Your task to perform on an android device: make emails show in primary in the gmail app Image 0: 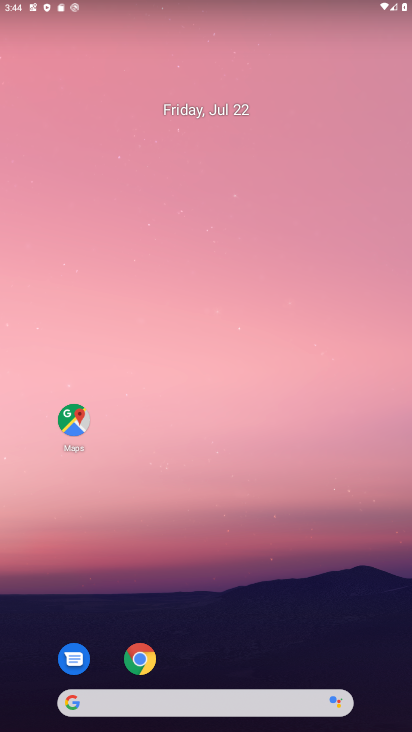
Step 0: drag from (200, 646) to (251, 183)
Your task to perform on an android device: make emails show in primary in the gmail app Image 1: 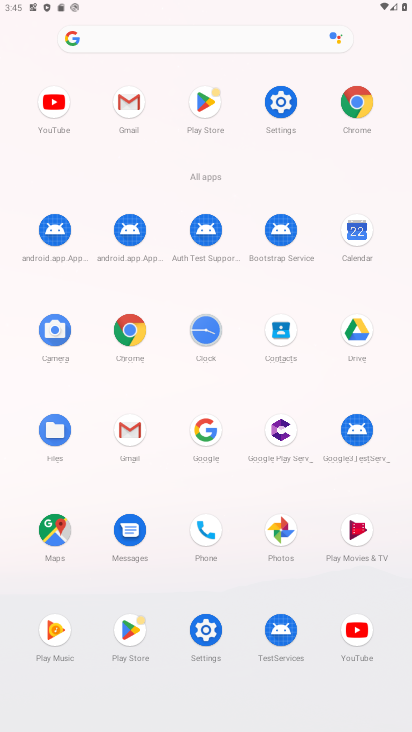
Step 1: click (126, 96)
Your task to perform on an android device: make emails show in primary in the gmail app Image 2: 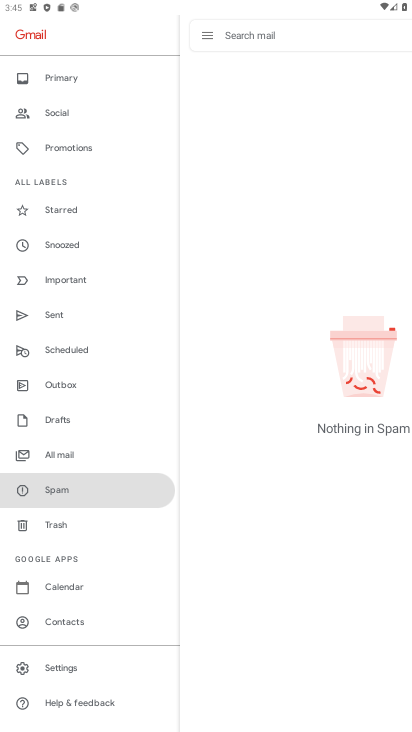
Step 2: click (94, 83)
Your task to perform on an android device: make emails show in primary in the gmail app Image 3: 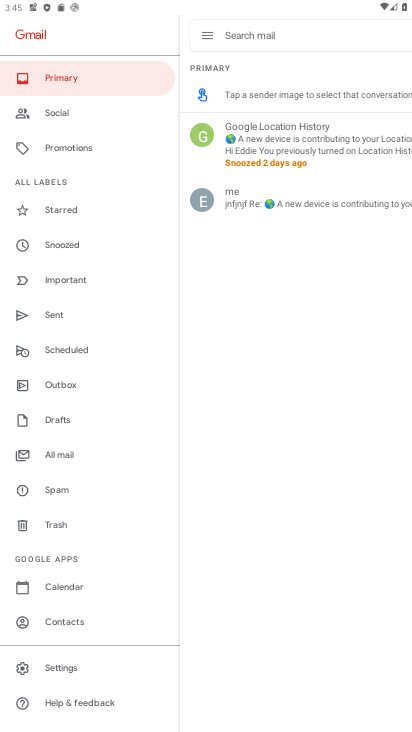
Step 3: task complete